Your task to perform on an android device: Open Chrome and go to the settings page Image 0: 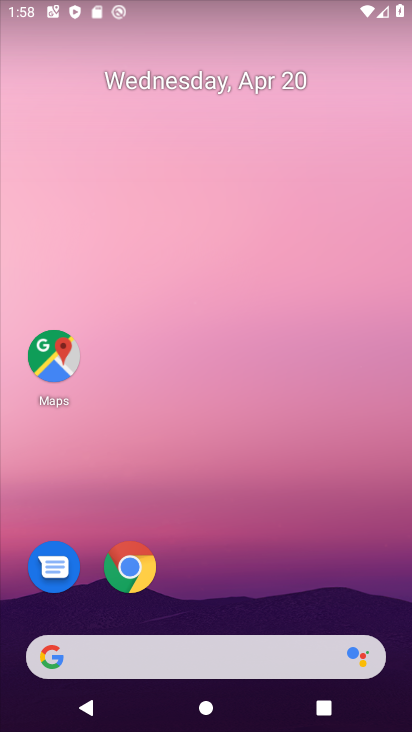
Step 0: click (125, 565)
Your task to perform on an android device: Open Chrome and go to the settings page Image 1: 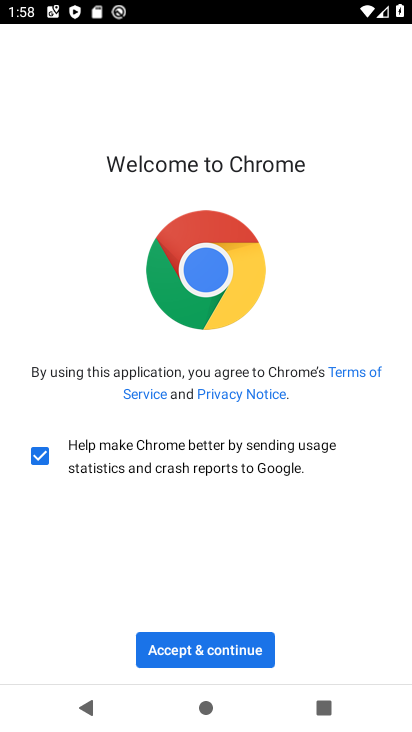
Step 1: click (174, 639)
Your task to perform on an android device: Open Chrome and go to the settings page Image 2: 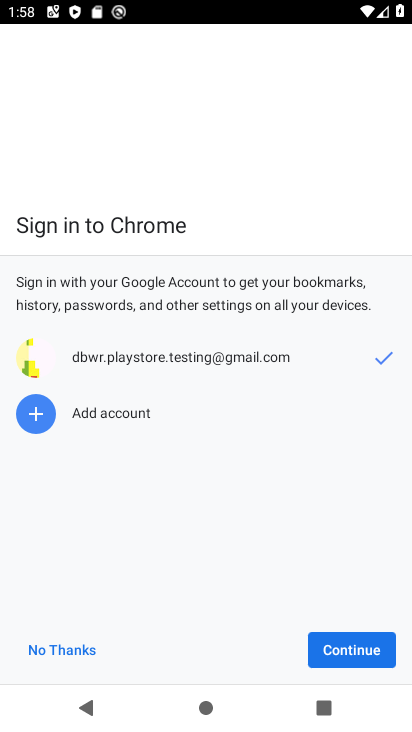
Step 2: click (320, 642)
Your task to perform on an android device: Open Chrome and go to the settings page Image 3: 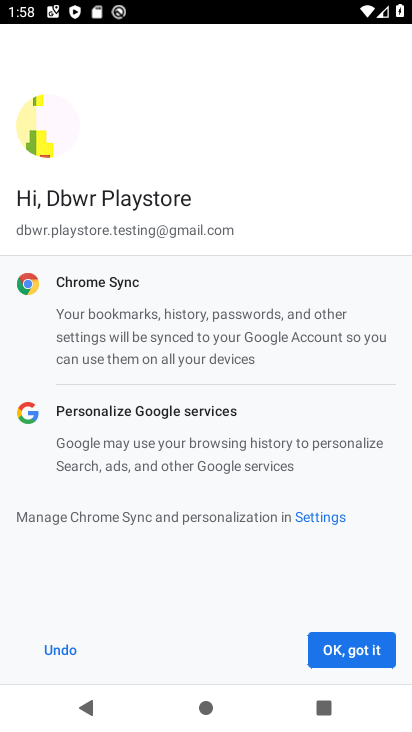
Step 3: click (325, 646)
Your task to perform on an android device: Open Chrome and go to the settings page Image 4: 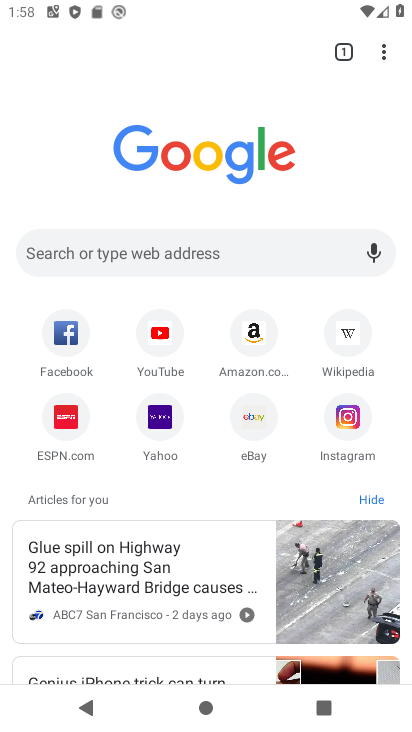
Step 4: task complete